Your task to perform on an android device: toggle translation in the chrome app Image 0: 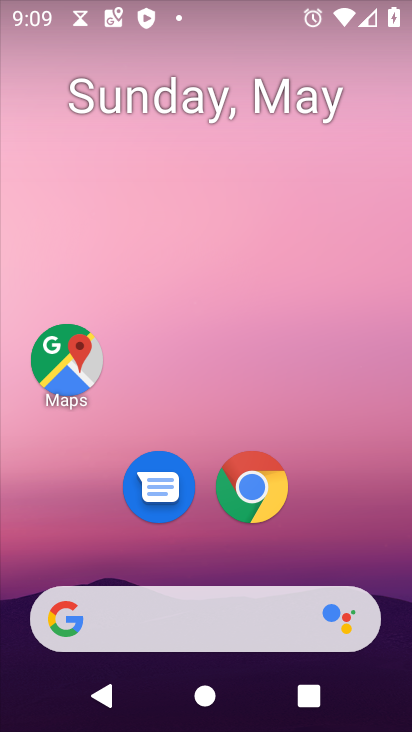
Step 0: click (262, 490)
Your task to perform on an android device: toggle translation in the chrome app Image 1: 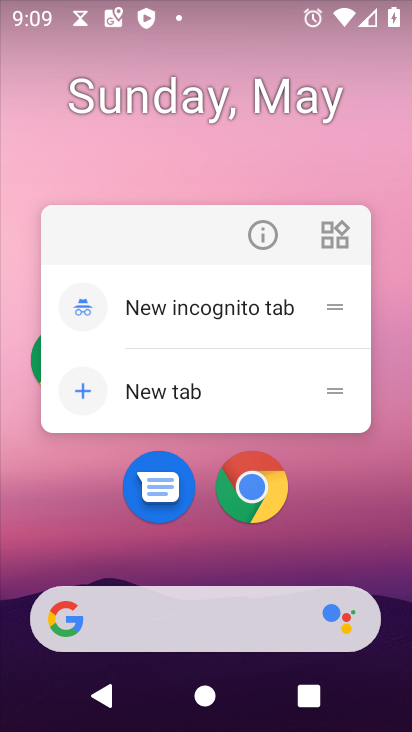
Step 1: click (262, 490)
Your task to perform on an android device: toggle translation in the chrome app Image 2: 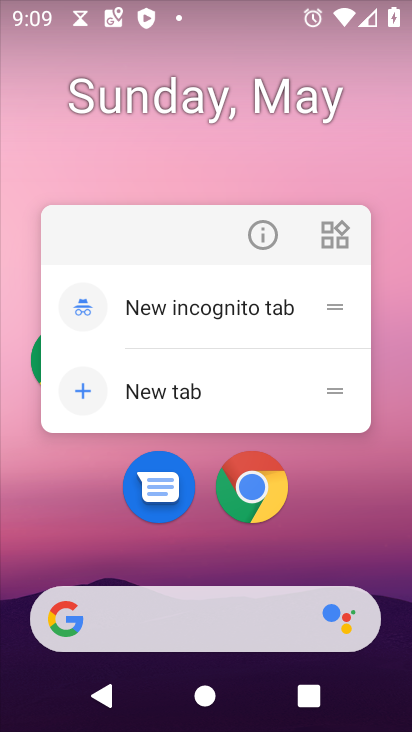
Step 2: click (368, 528)
Your task to perform on an android device: toggle translation in the chrome app Image 3: 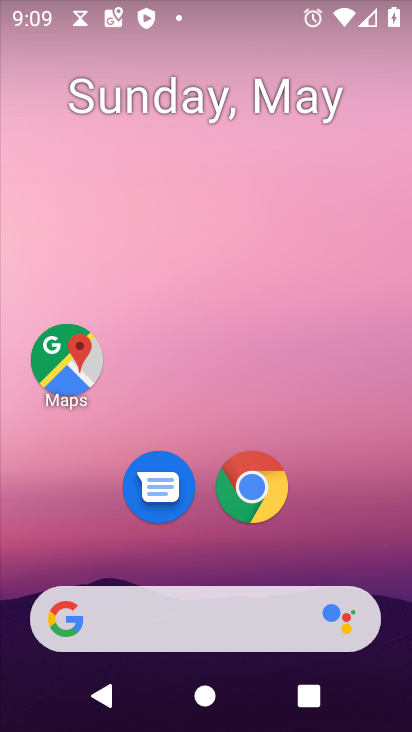
Step 3: drag from (348, 524) to (279, 3)
Your task to perform on an android device: toggle translation in the chrome app Image 4: 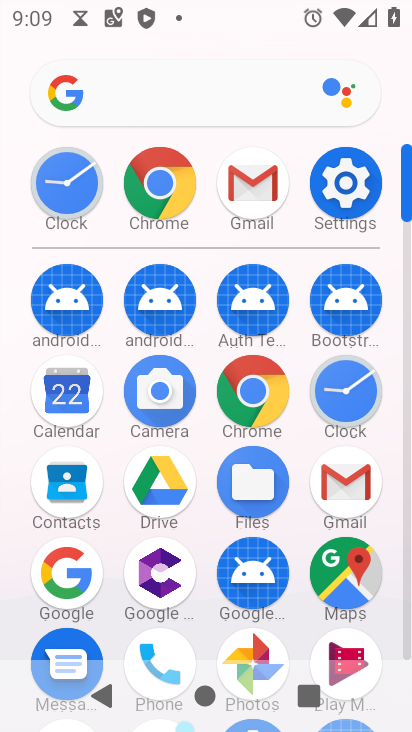
Step 4: click (156, 192)
Your task to perform on an android device: toggle translation in the chrome app Image 5: 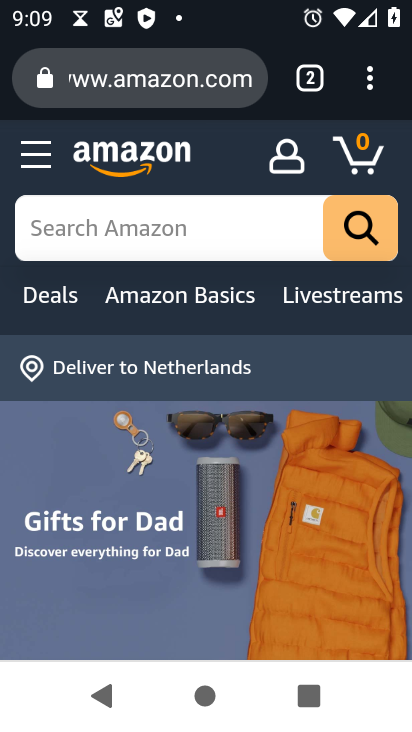
Step 5: drag from (376, 91) to (183, 546)
Your task to perform on an android device: toggle translation in the chrome app Image 6: 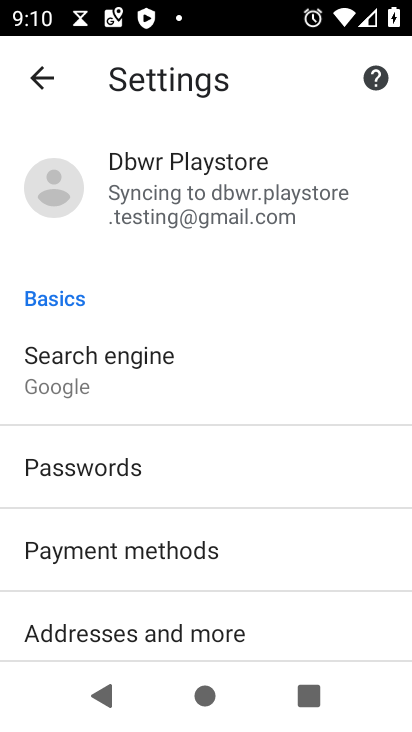
Step 6: drag from (158, 582) to (131, 252)
Your task to perform on an android device: toggle translation in the chrome app Image 7: 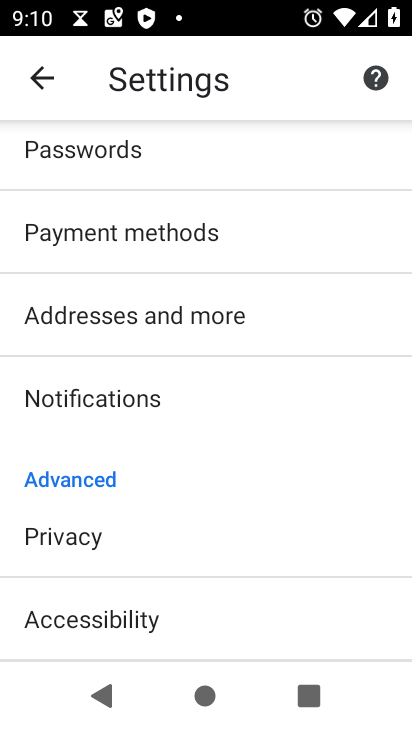
Step 7: drag from (217, 531) to (197, 200)
Your task to perform on an android device: toggle translation in the chrome app Image 8: 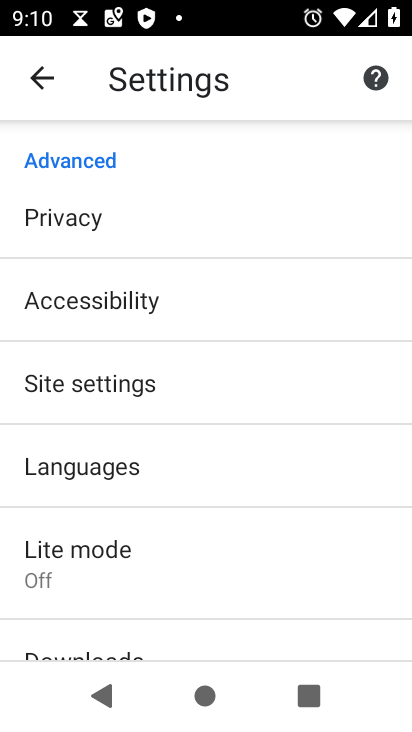
Step 8: click (170, 467)
Your task to perform on an android device: toggle translation in the chrome app Image 9: 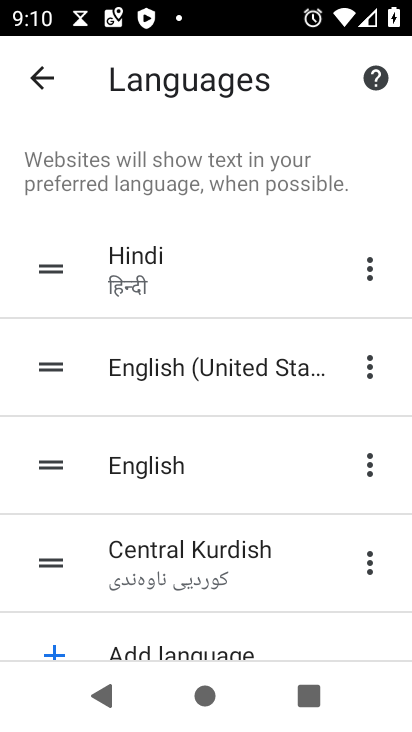
Step 9: drag from (194, 552) to (227, 210)
Your task to perform on an android device: toggle translation in the chrome app Image 10: 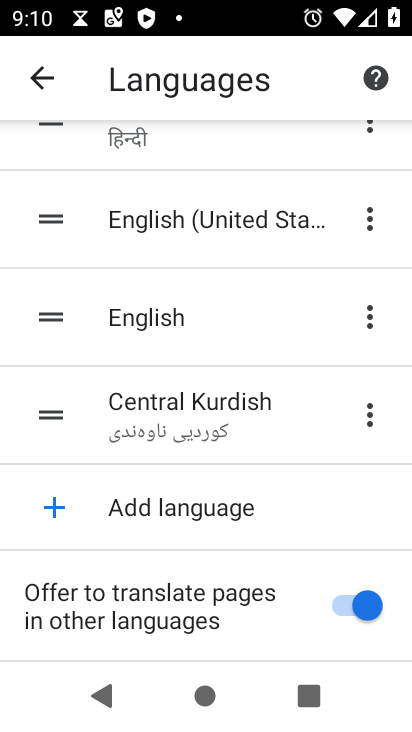
Step 10: click (380, 605)
Your task to perform on an android device: toggle translation in the chrome app Image 11: 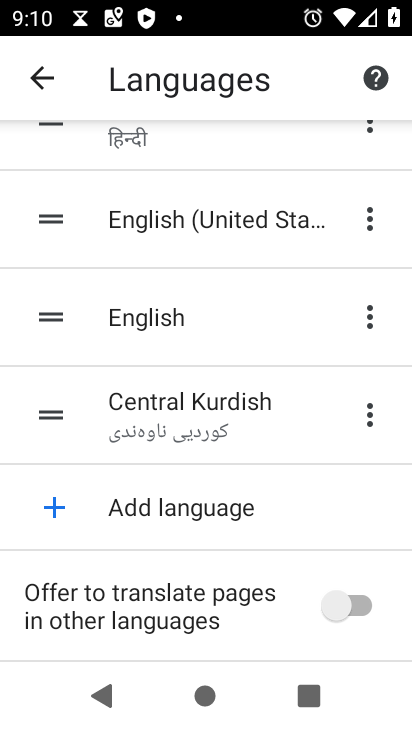
Step 11: task complete